Your task to perform on an android device: View the shopping cart on target.com. Search for jbl flip 4 on target.com, select the first entry, and add it to the cart. Image 0: 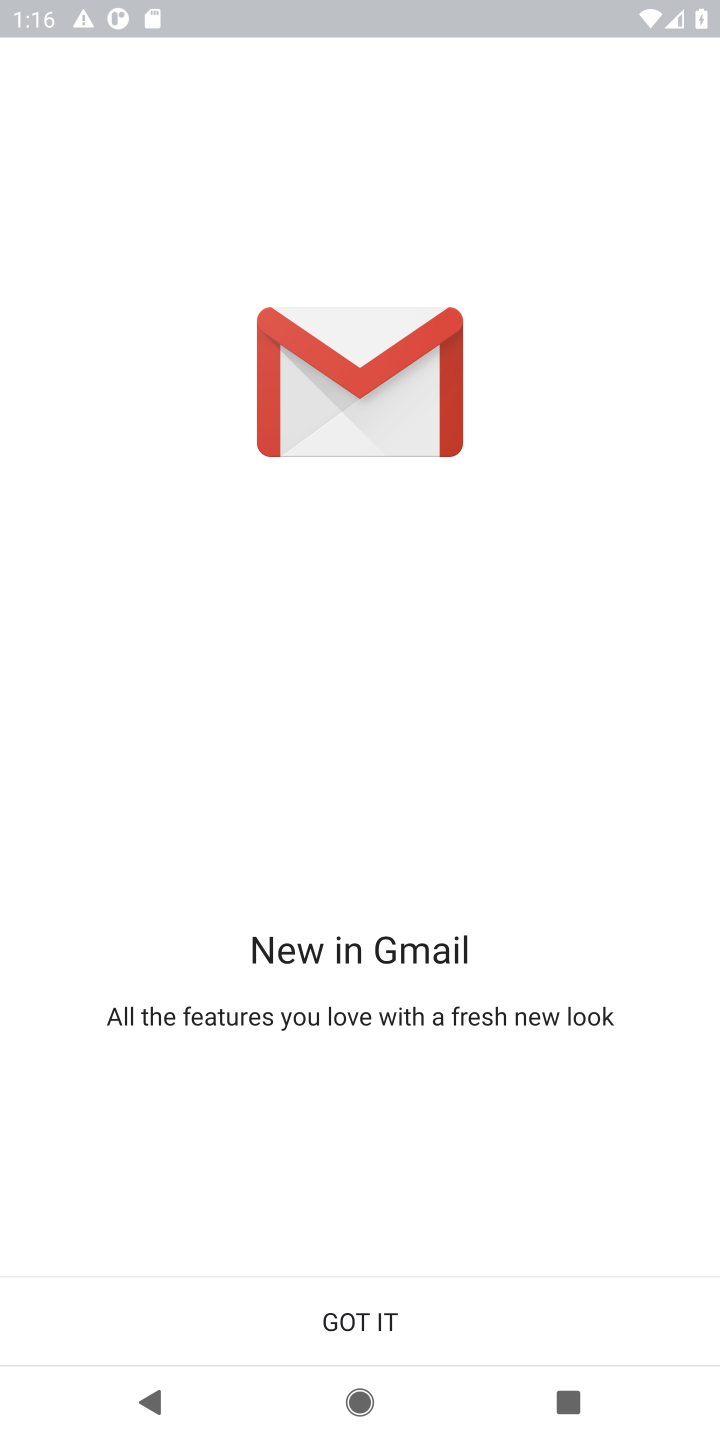
Step 0: press home button
Your task to perform on an android device: View the shopping cart on target.com. Search for jbl flip 4 on target.com, select the first entry, and add it to the cart. Image 1: 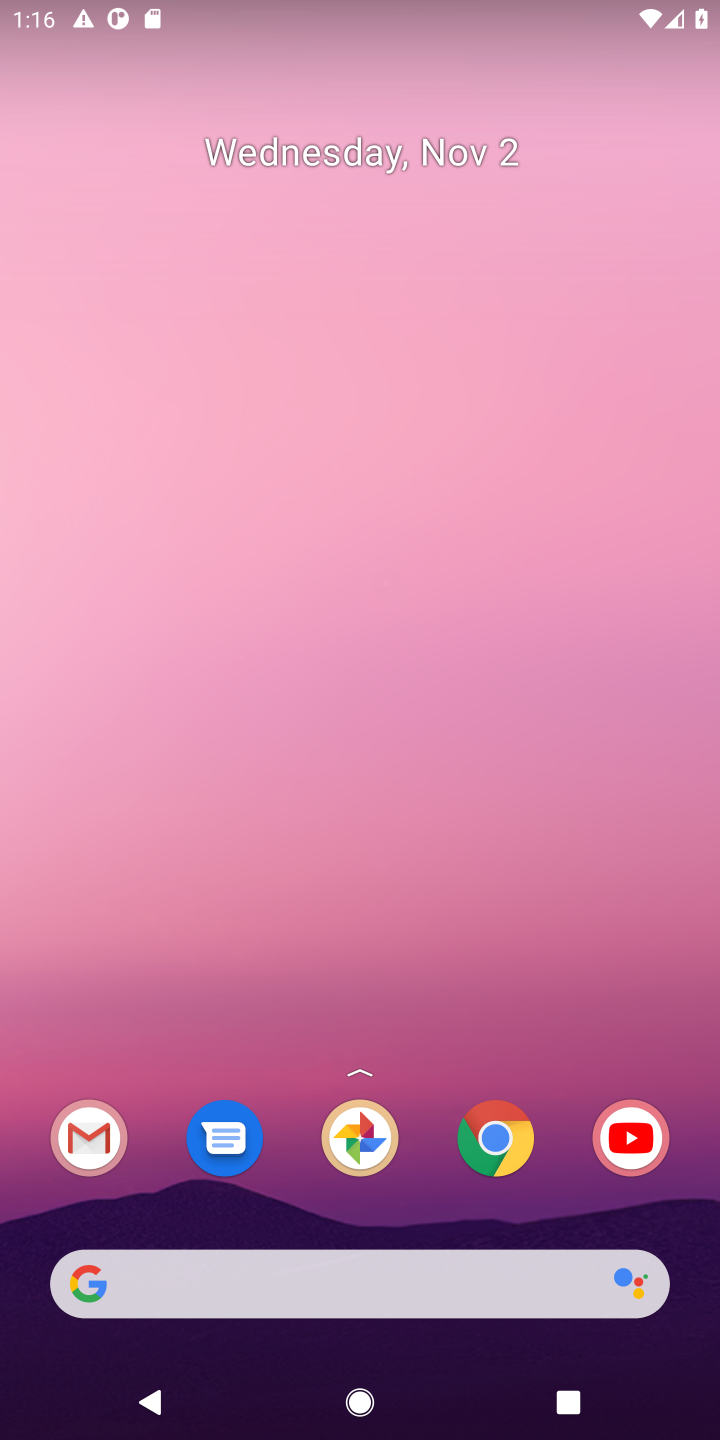
Step 1: click (505, 1117)
Your task to perform on an android device: View the shopping cart on target.com. Search for jbl flip 4 on target.com, select the first entry, and add it to the cart. Image 2: 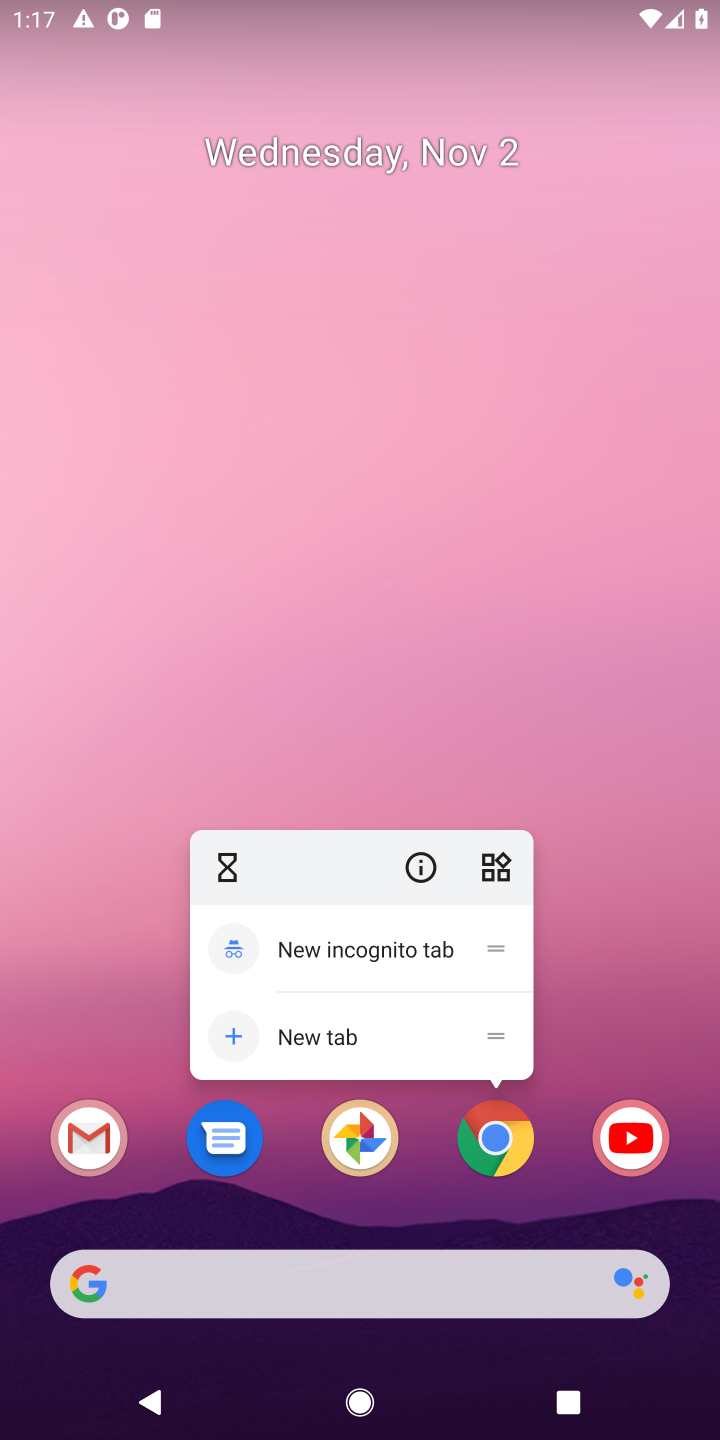
Step 2: click (506, 1149)
Your task to perform on an android device: View the shopping cart on target.com. Search for jbl flip 4 on target.com, select the first entry, and add it to the cart. Image 3: 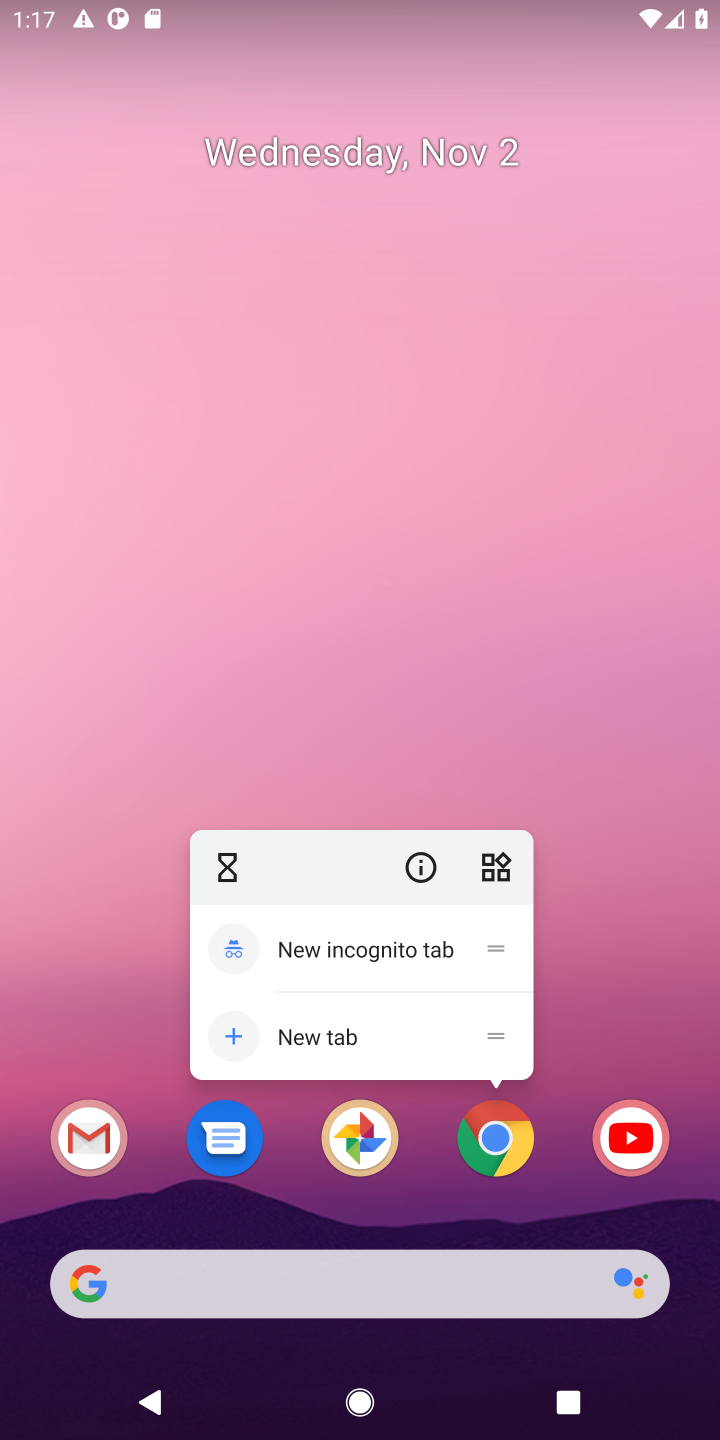
Step 3: click (506, 1149)
Your task to perform on an android device: View the shopping cart on target.com. Search for jbl flip 4 on target.com, select the first entry, and add it to the cart. Image 4: 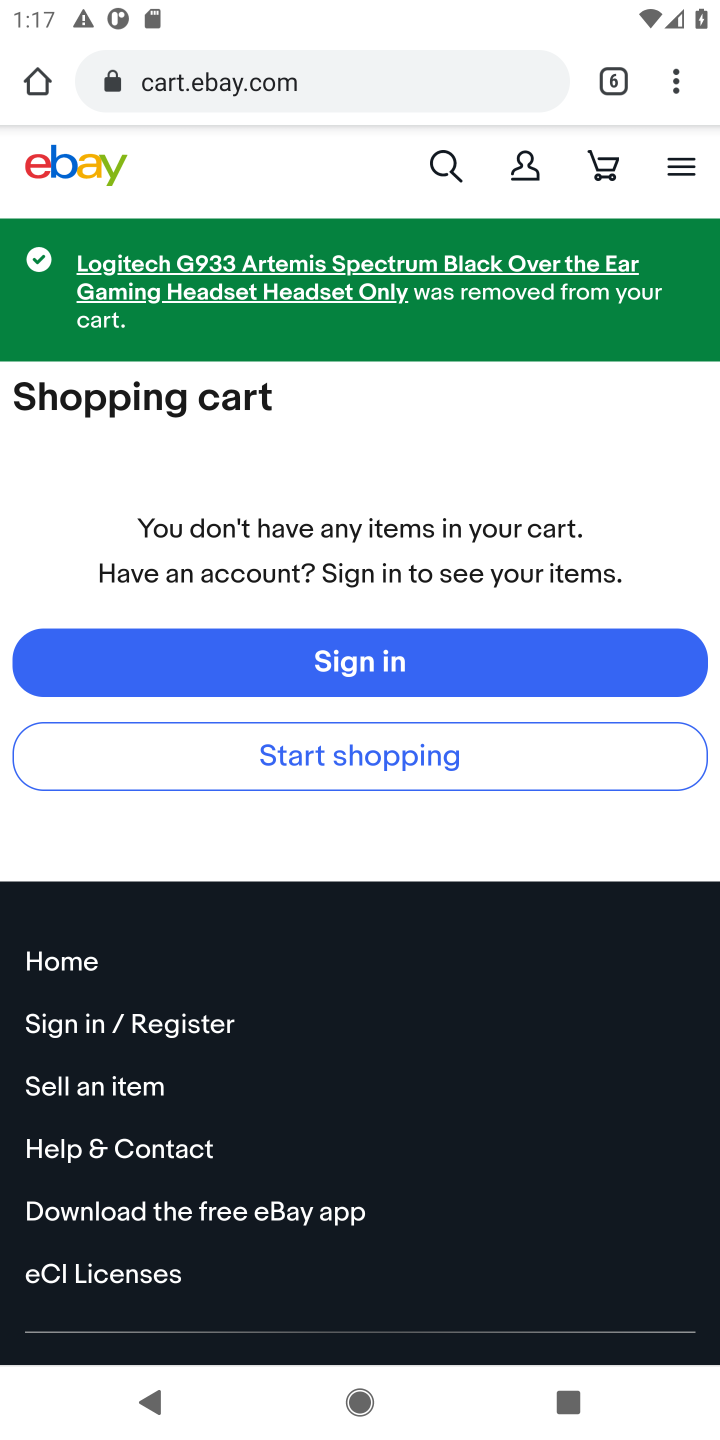
Step 4: click (611, 75)
Your task to perform on an android device: View the shopping cart on target.com. Search for jbl flip 4 on target.com, select the first entry, and add it to the cart. Image 5: 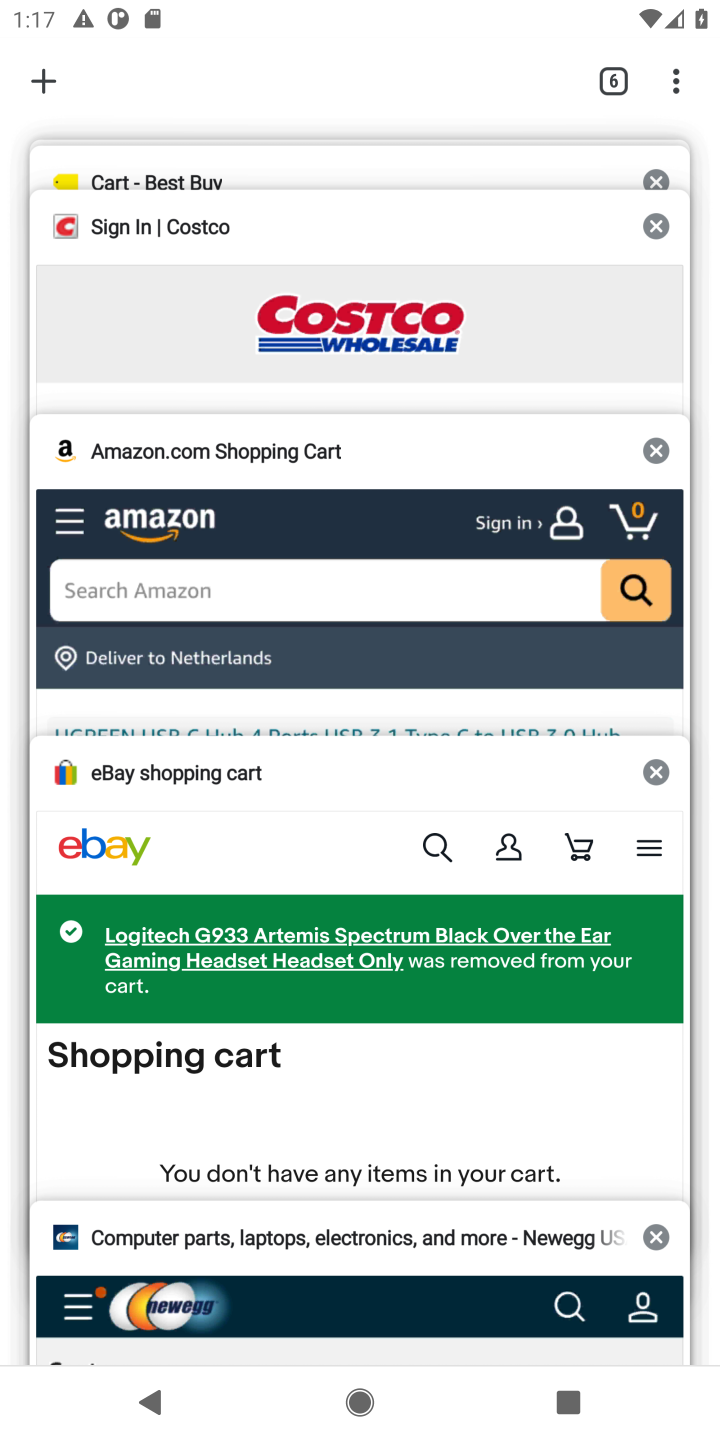
Step 5: drag from (156, 1238) to (259, 548)
Your task to perform on an android device: View the shopping cart on target.com. Search for jbl flip 4 on target.com, select the first entry, and add it to the cart. Image 6: 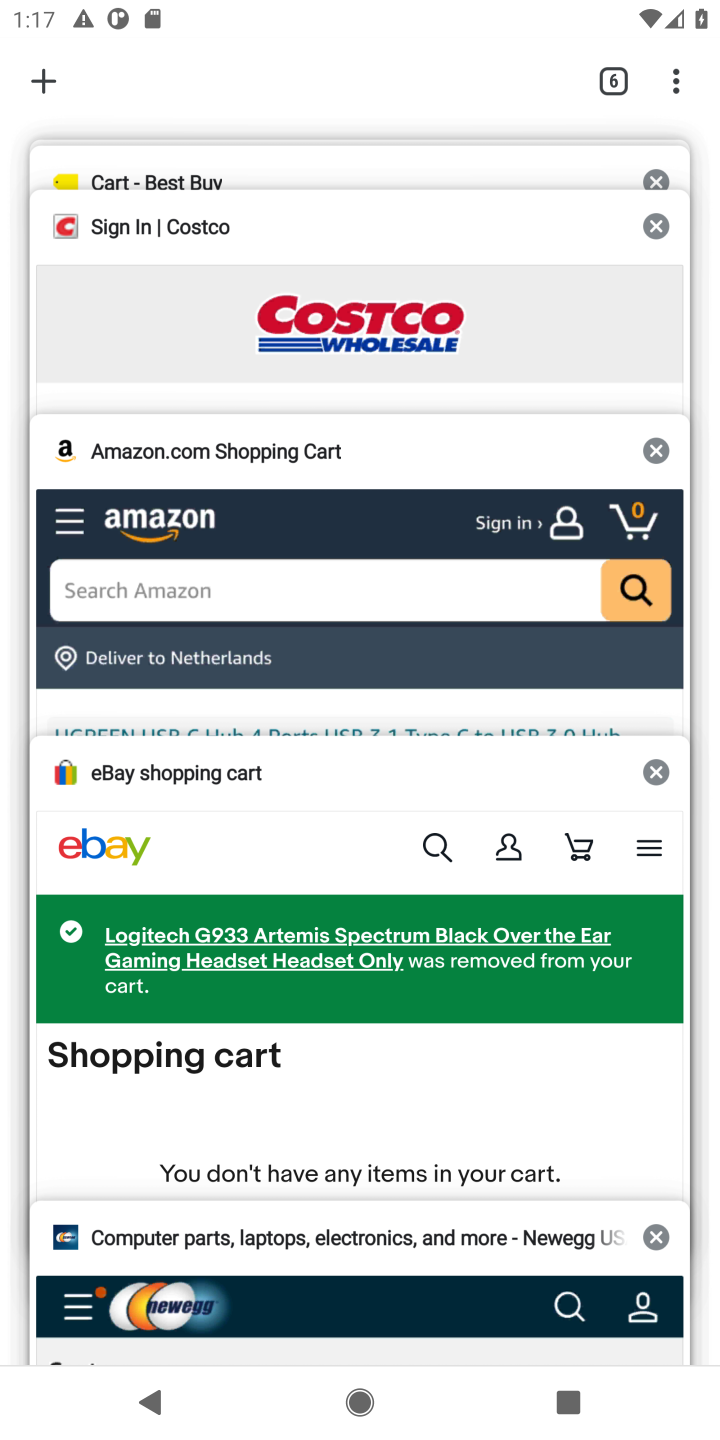
Step 6: drag from (289, 1268) to (441, 812)
Your task to perform on an android device: View the shopping cart on target.com. Search for jbl flip 4 on target.com, select the first entry, and add it to the cart. Image 7: 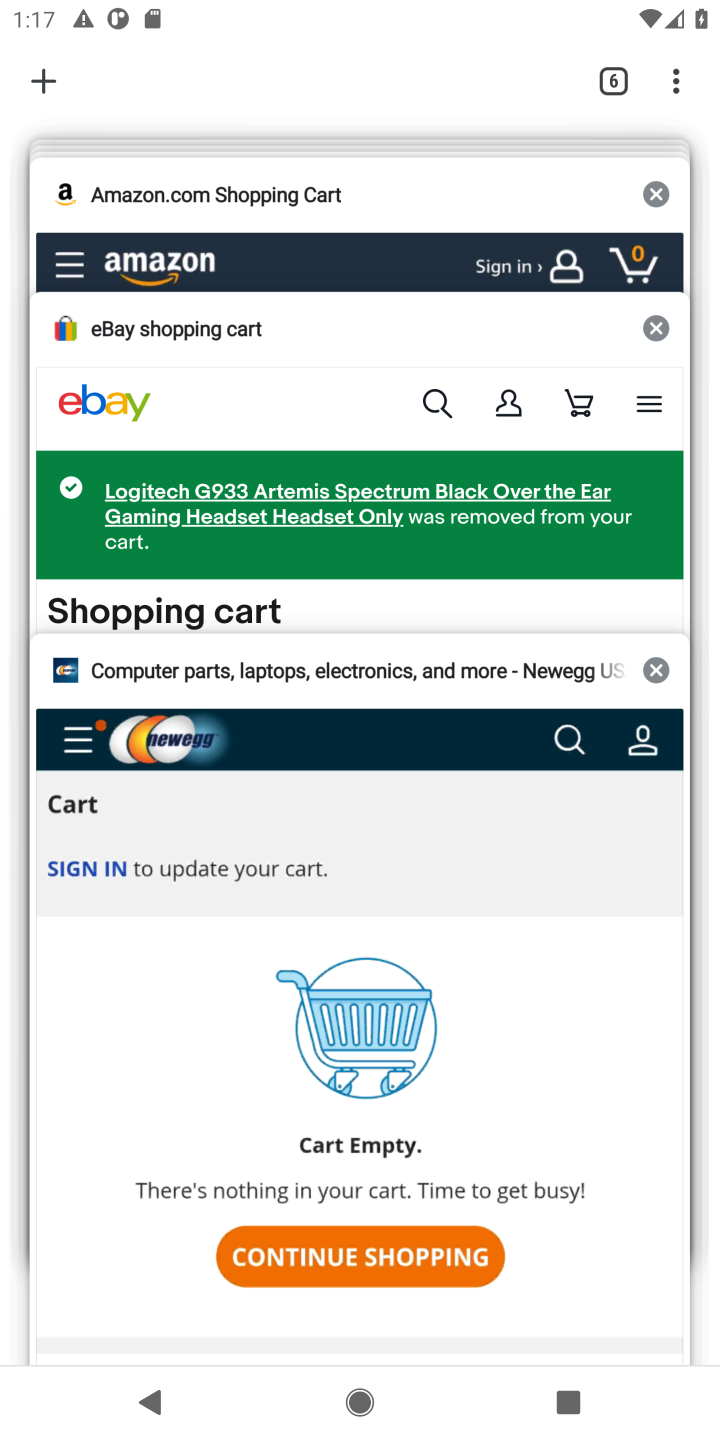
Step 7: click (42, 81)
Your task to perform on an android device: View the shopping cart on target.com. Search for jbl flip 4 on target.com, select the first entry, and add it to the cart. Image 8: 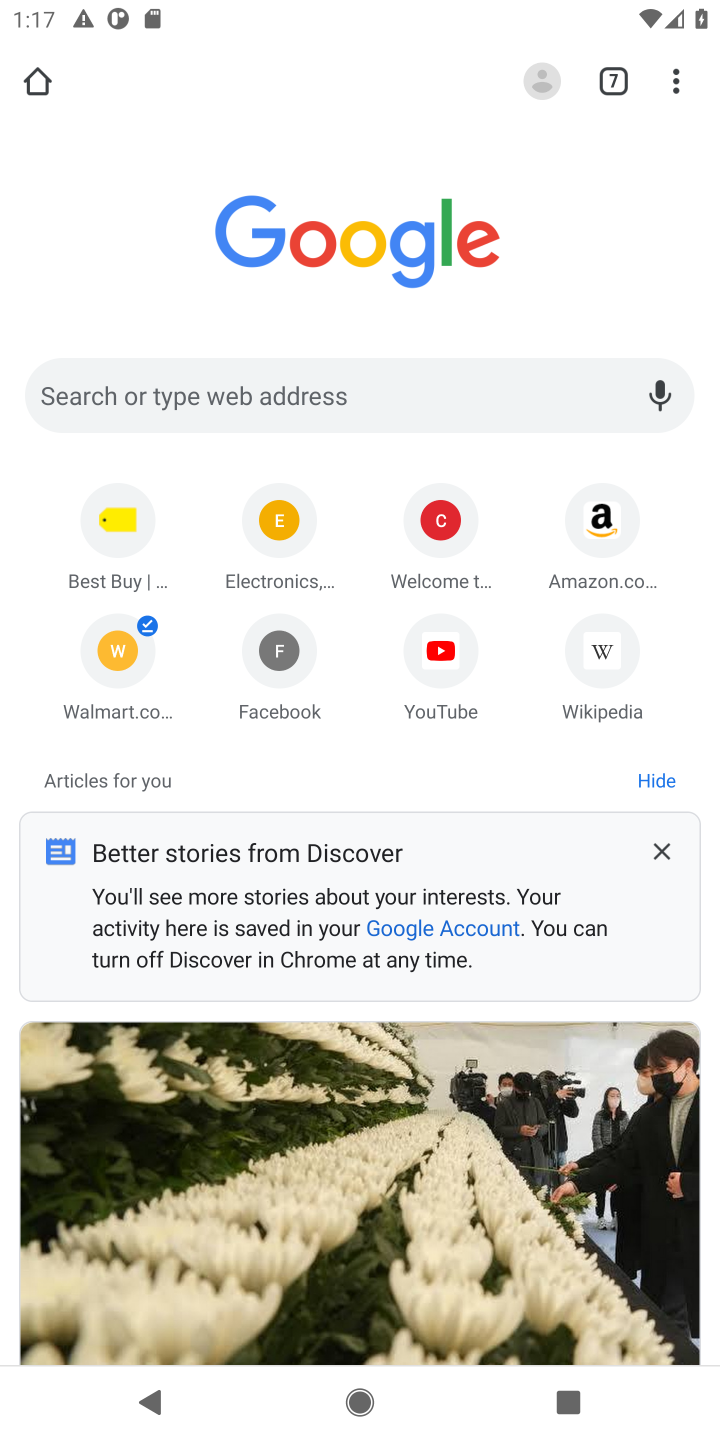
Step 8: click (265, 382)
Your task to perform on an android device: View the shopping cart on target.com. Search for jbl flip 4 on target.com, select the first entry, and add it to the cart. Image 9: 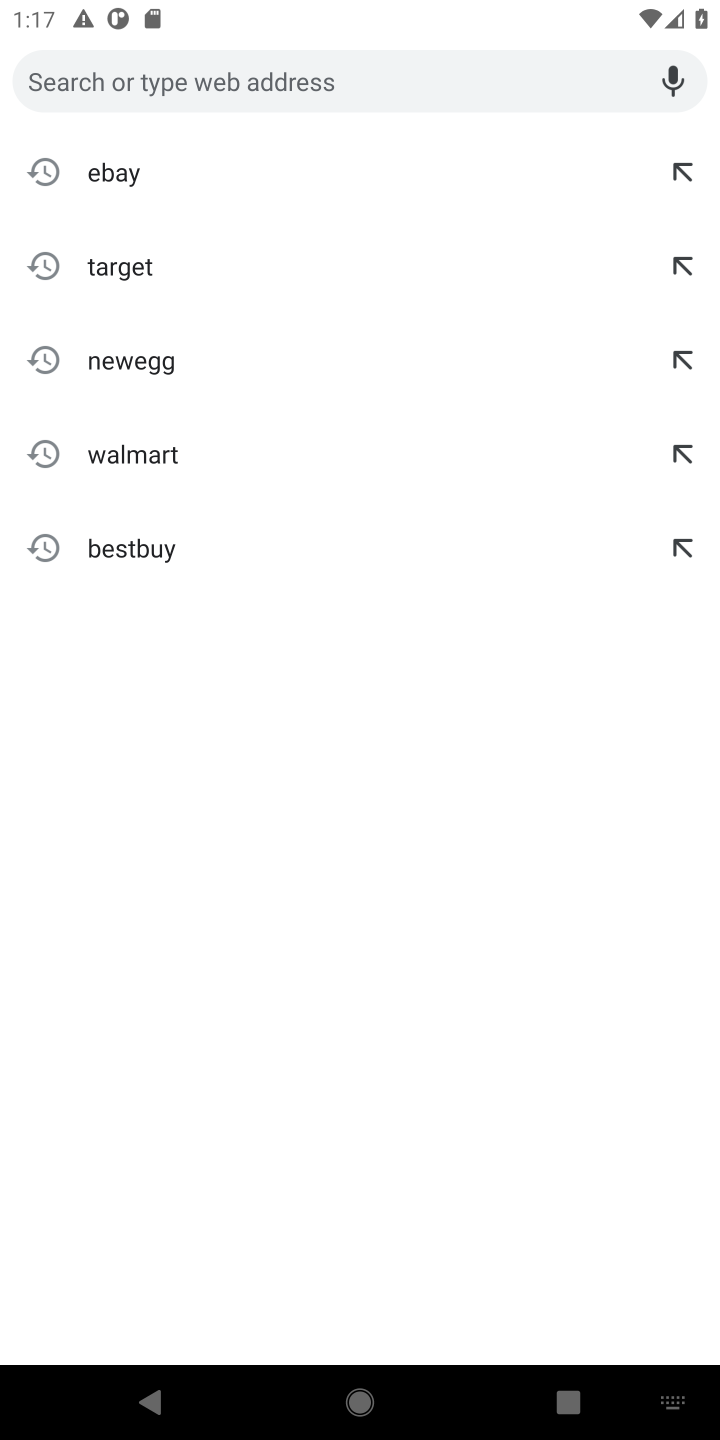
Step 9: click (125, 262)
Your task to perform on an android device: View the shopping cart on target.com. Search for jbl flip 4 on target.com, select the first entry, and add it to the cart. Image 10: 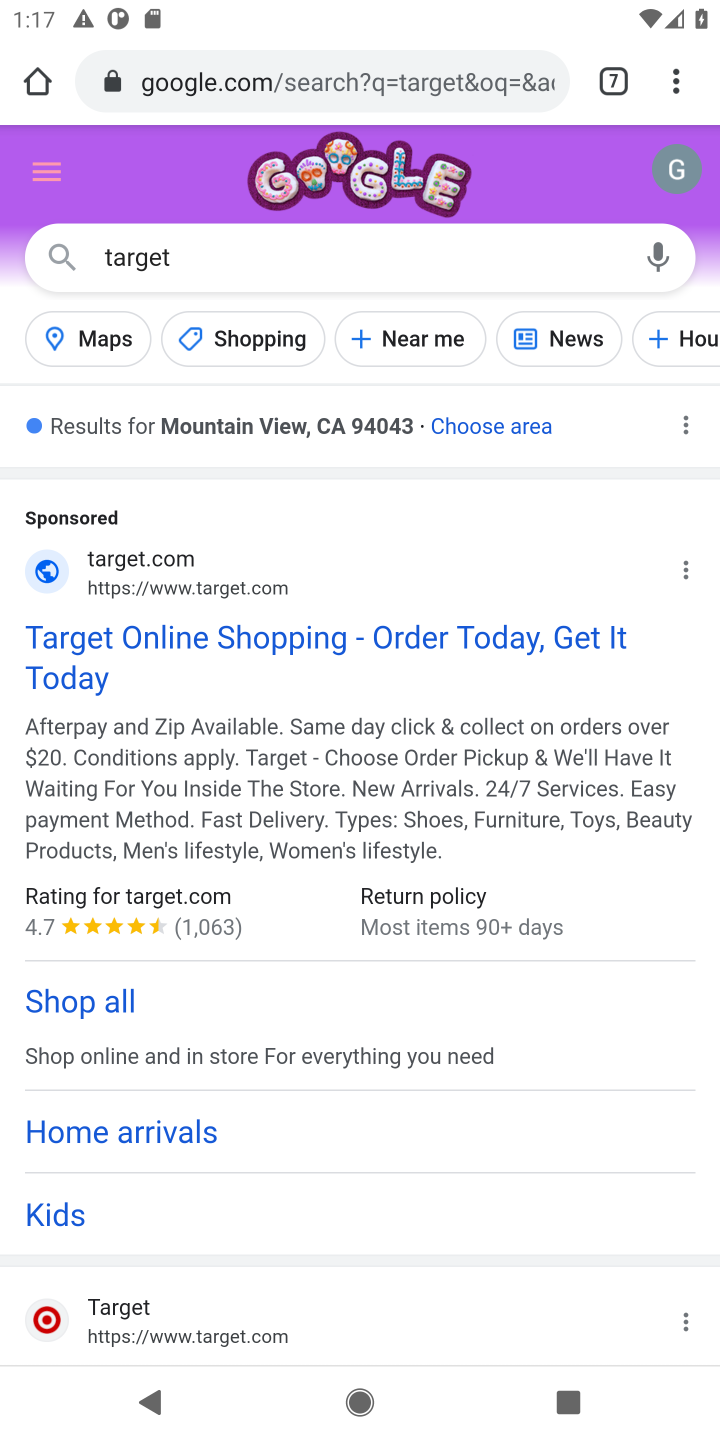
Step 10: drag from (328, 1169) to (425, 558)
Your task to perform on an android device: View the shopping cart on target.com. Search for jbl flip 4 on target.com, select the first entry, and add it to the cart. Image 11: 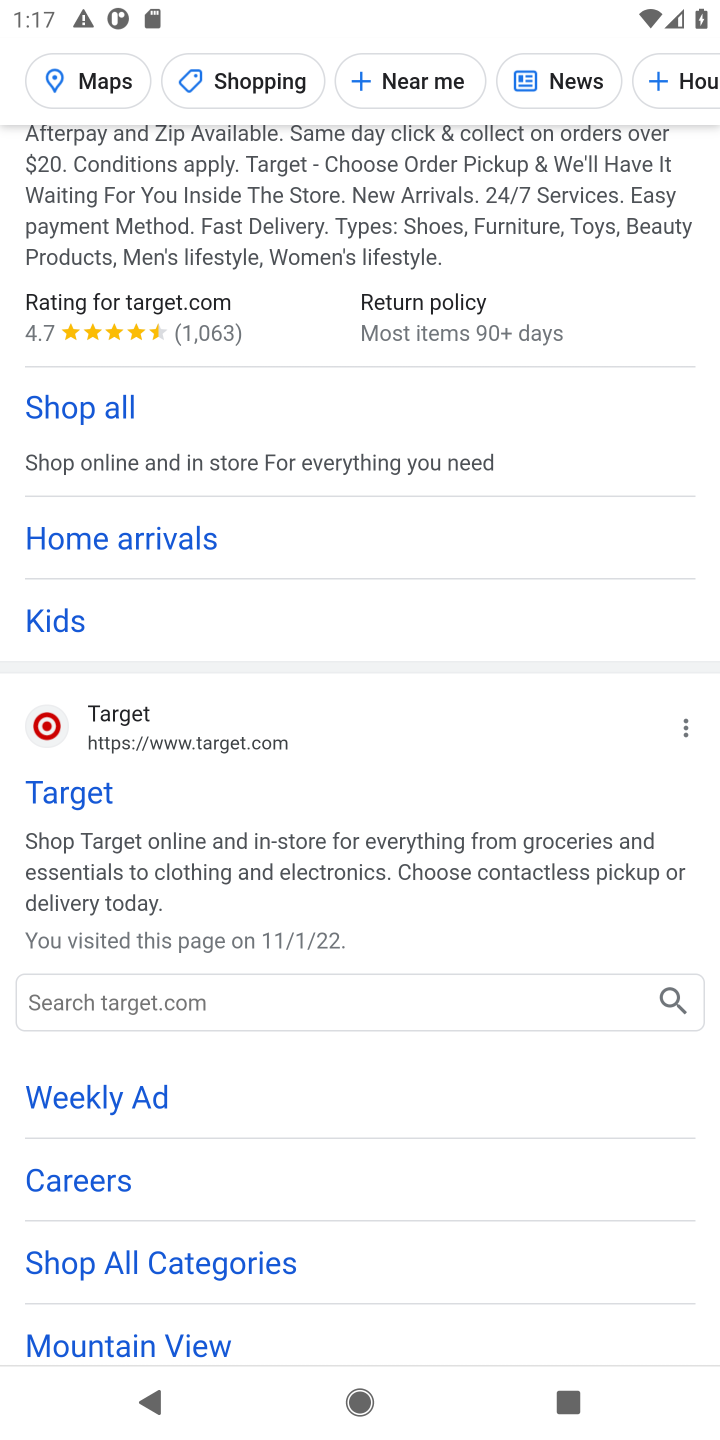
Step 11: click (278, 1003)
Your task to perform on an android device: View the shopping cart on target.com. Search for jbl flip 4 on target.com, select the first entry, and add it to the cart. Image 12: 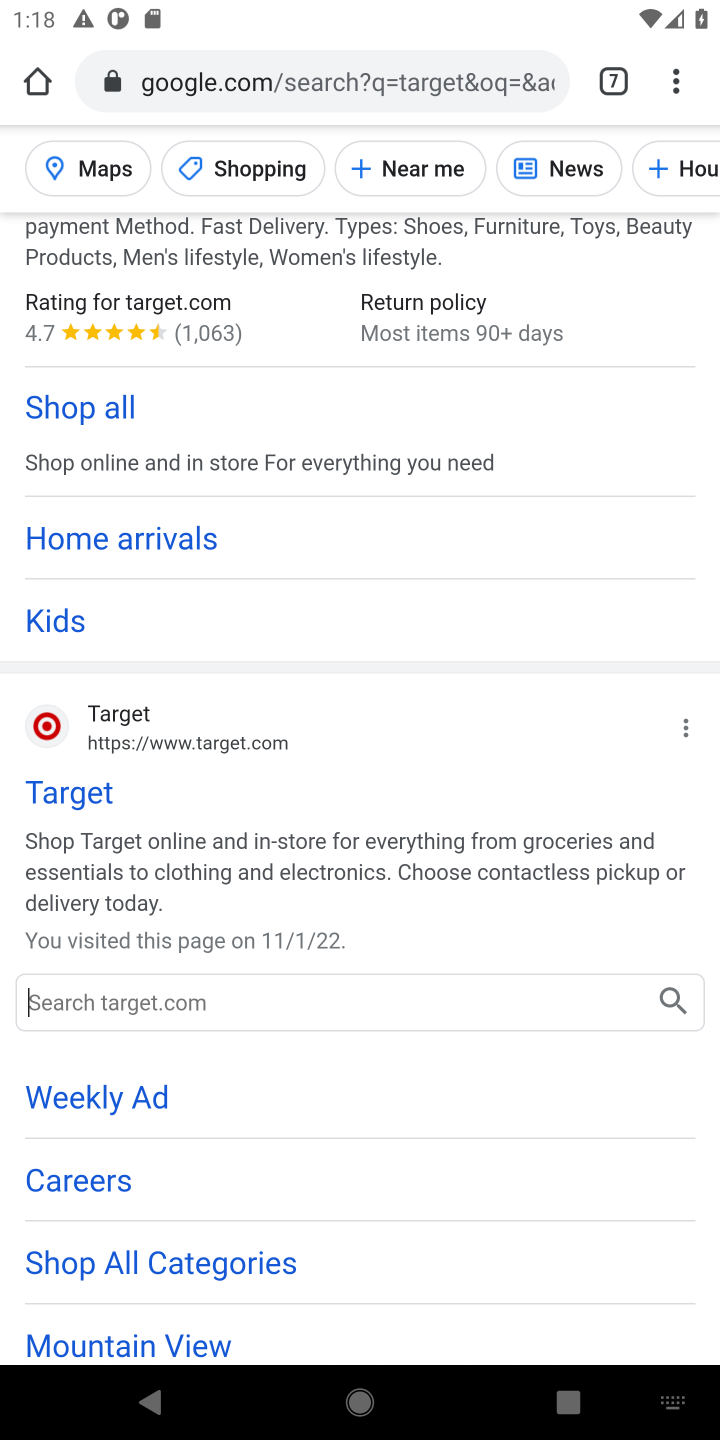
Step 12: type "jbl flip 4"
Your task to perform on an android device: View the shopping cart on target.com. Search for jbl flip 4 on target.com, select the first entry, and add it to the cart. Image 13: 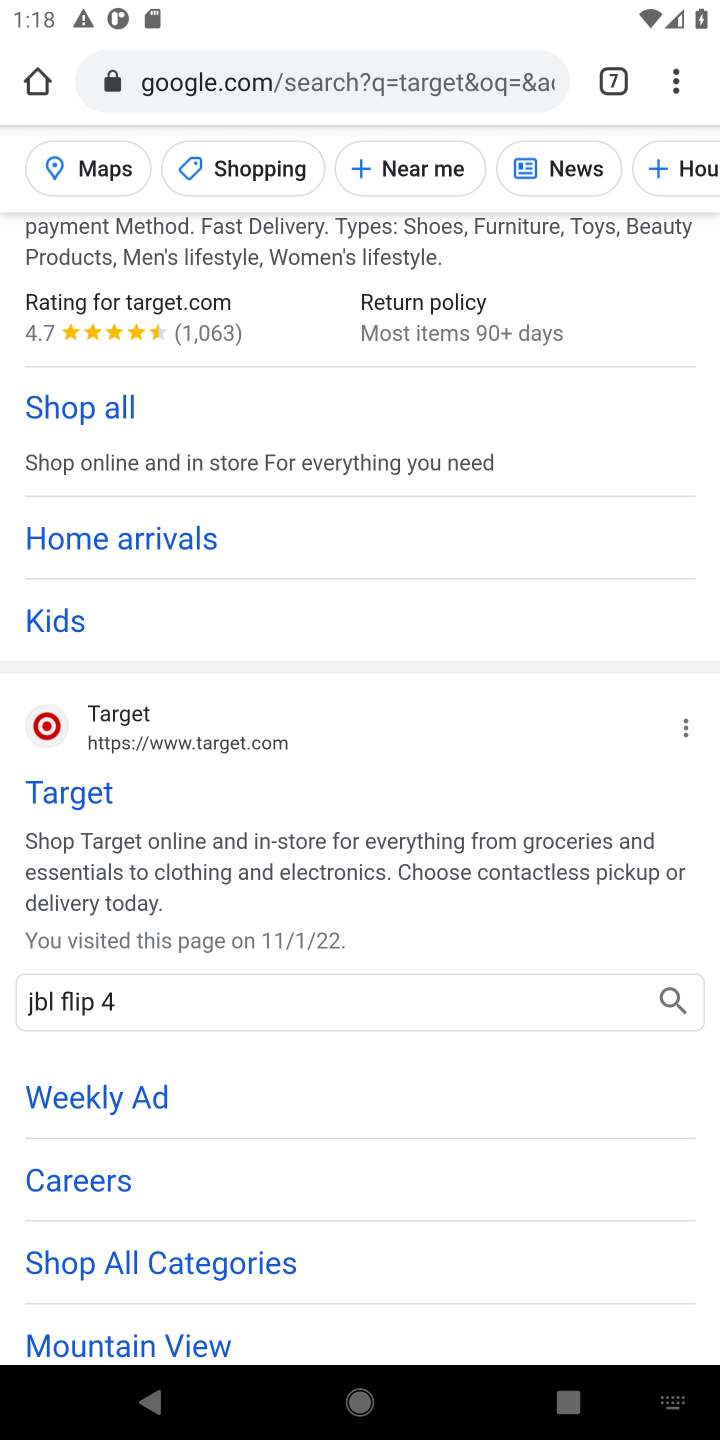
Step 13: click (677, 1008)
Your task to perform on an android device: View the shopping cart on target.com. Search for jbl flip 4 on target.com, select the first entry, and add it to the cart. Image 14: 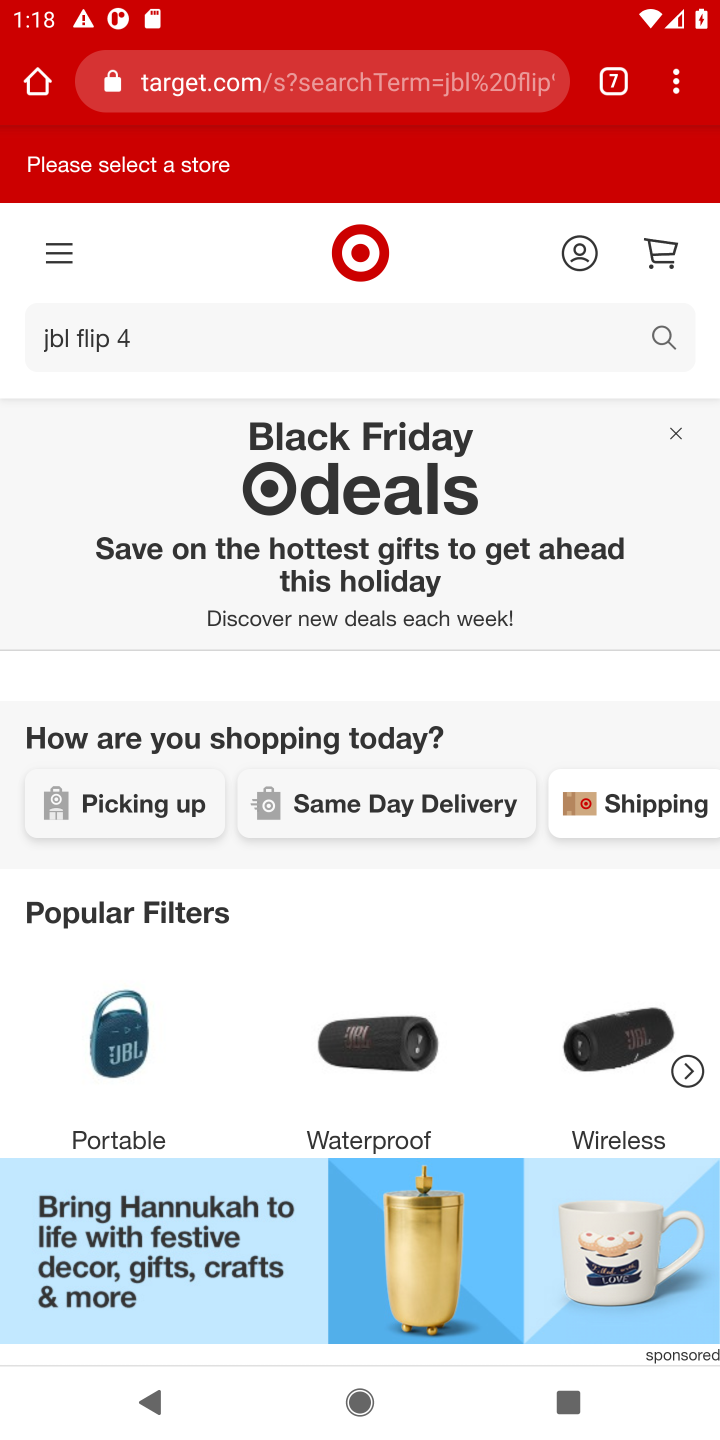
Step 14: drag from (268, 1235) to (346, 651)
Your task to perform on an android device: View the shopping cart on target.com. Search for jbl flip 4 on target.com, select the first entry, and add it to the cart. Image 15: 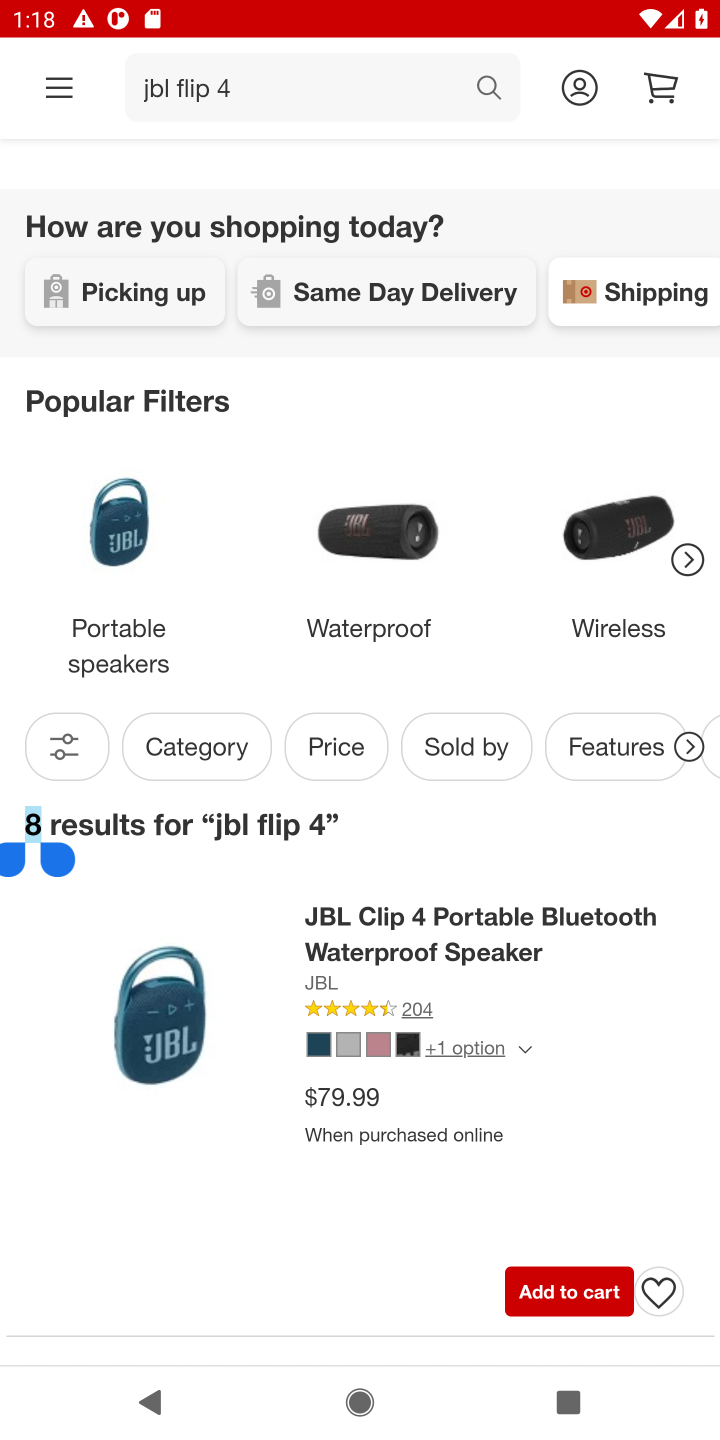
Step 15: click (568, 1289)
Your task to perform on an android device: View the shopping cart on target.com. Search for jbl flip 4 on target.com, select the first entry, and add it to the cart. Image 16: 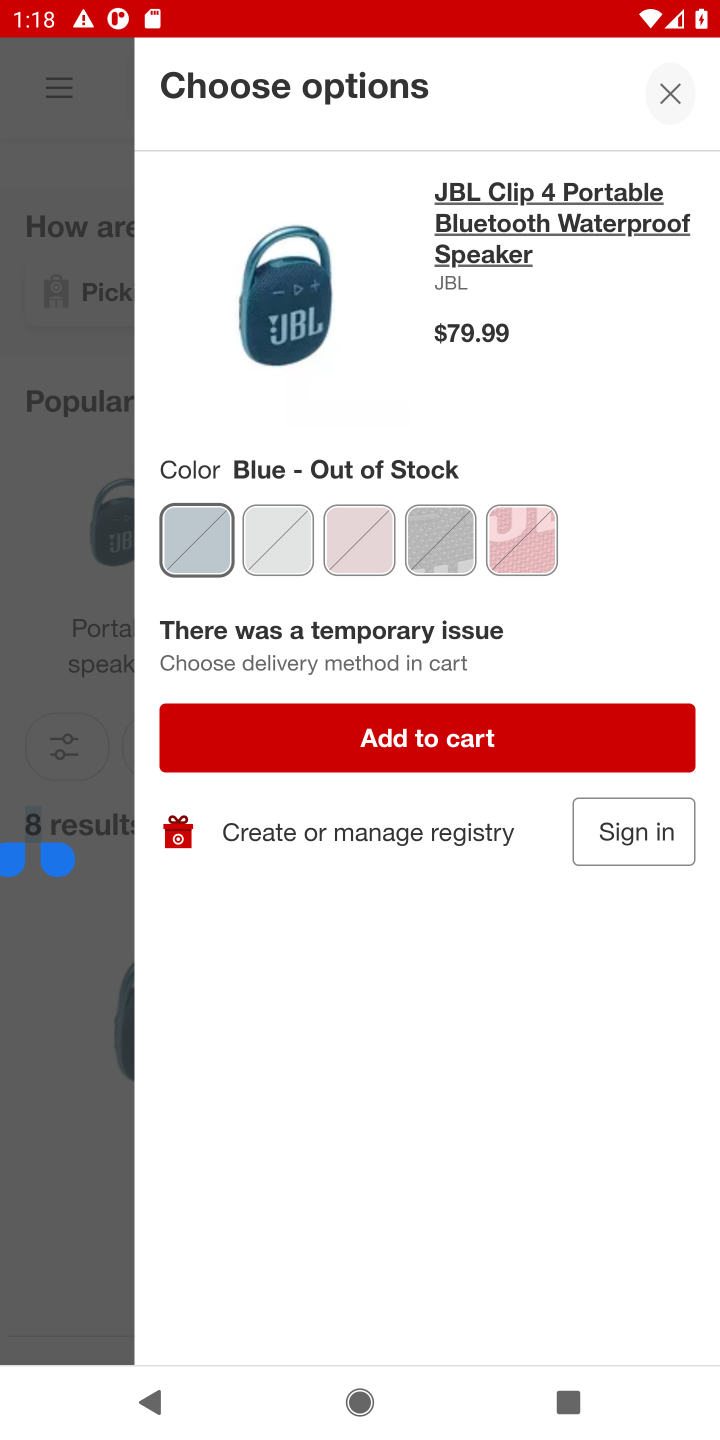
Step 16: click (516, 744)
Your task to perform on an android device: View the shopping cart on target.com. Search for jbl flip 4 on target.com, select the first entry, and add it to the cart. Image 17: 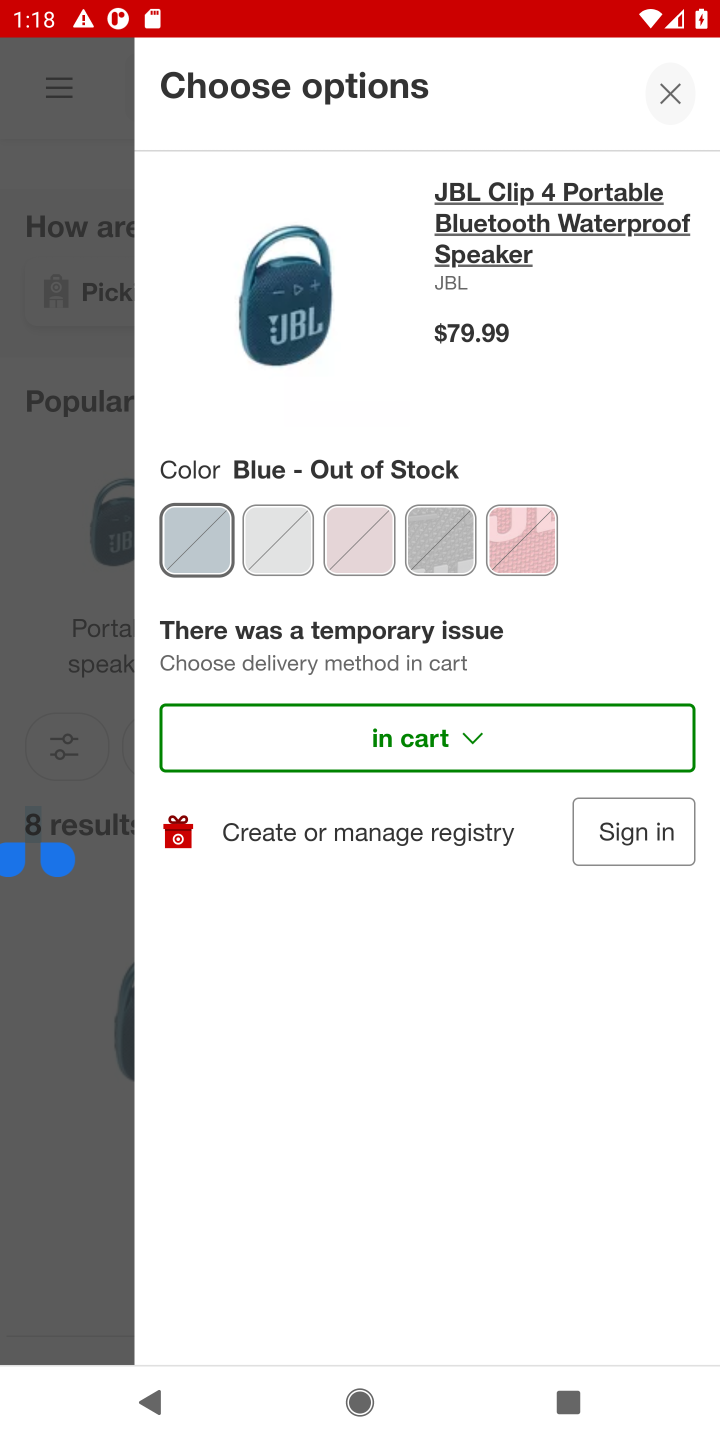
Step 17: task complete